Your task to perform on an android device: toggle airplane mode Image 0: 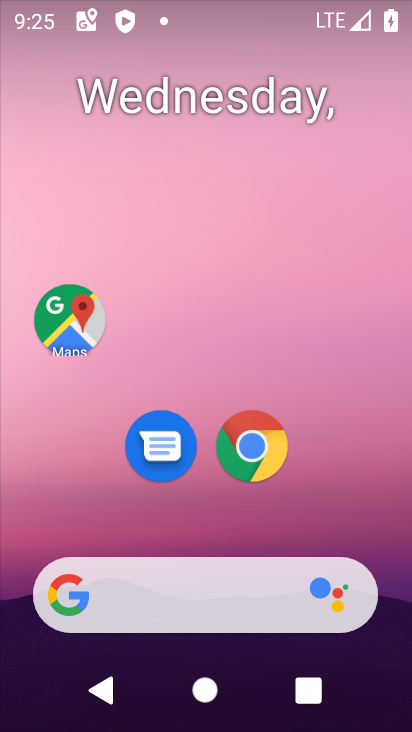
Step 0: press home button
Your task to perform on an android device: toggle airplane mode Image 1: 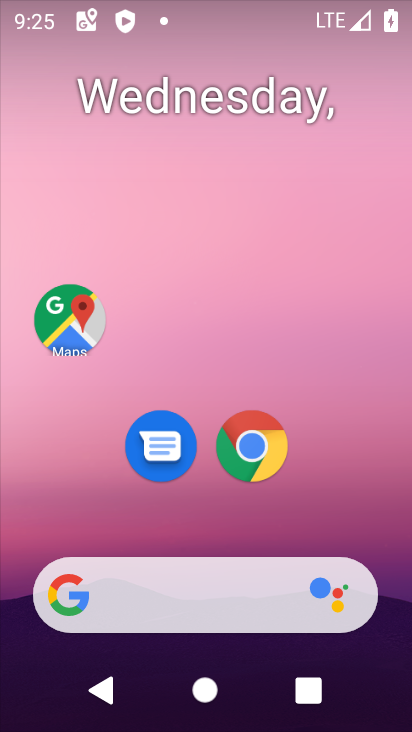
Step 1: drag from (167, 590) to (292, 183)
Your task to perform on an android device: toggle airplane mode Image 2: 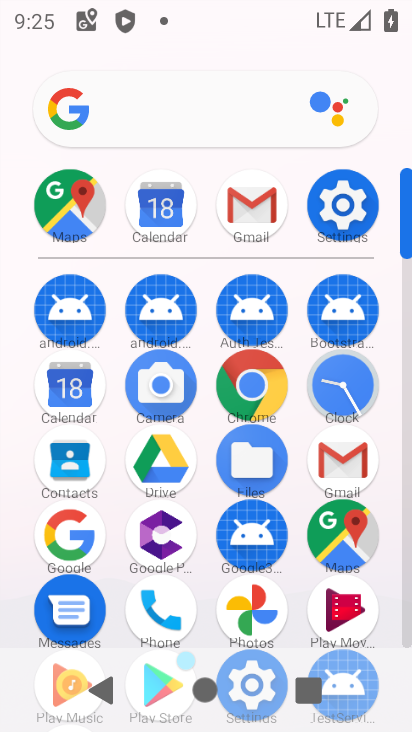
Step 2: click (335, 206)
Your task to perform on an android device: toggle airplane mode Image 3: 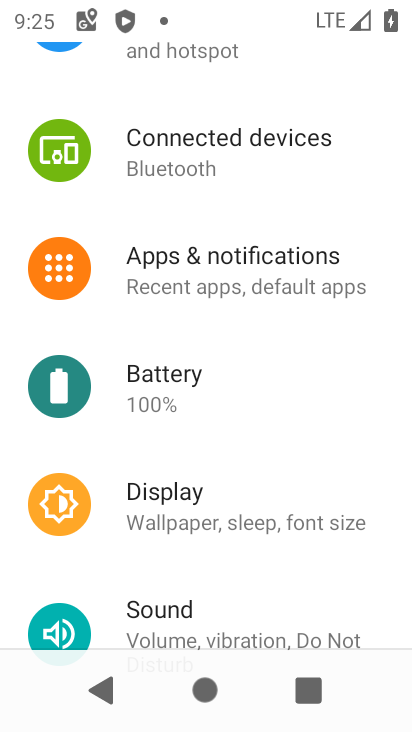
Step 3: drag from (321, 90) to (249, 541)
Your task to perform on an android device: toggle airplane mode Image 4: 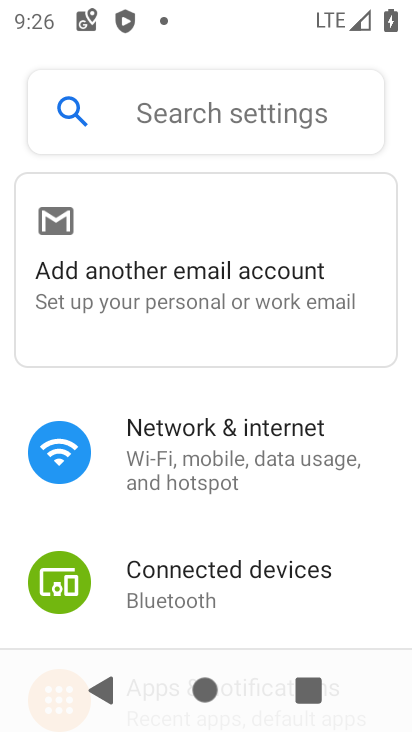
Step 4: click (244, 450)
Your task to perform on an android device: toggle airplane mode Image 5: 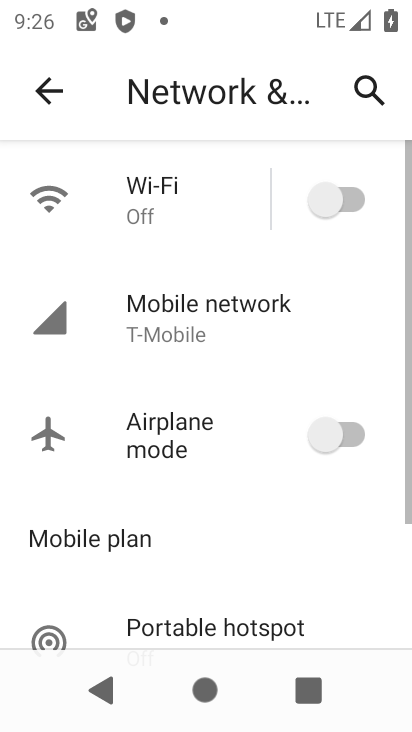
Step 5: click (358, 427)
Your task to perform on an android device: toggle airplane mode Image 6: 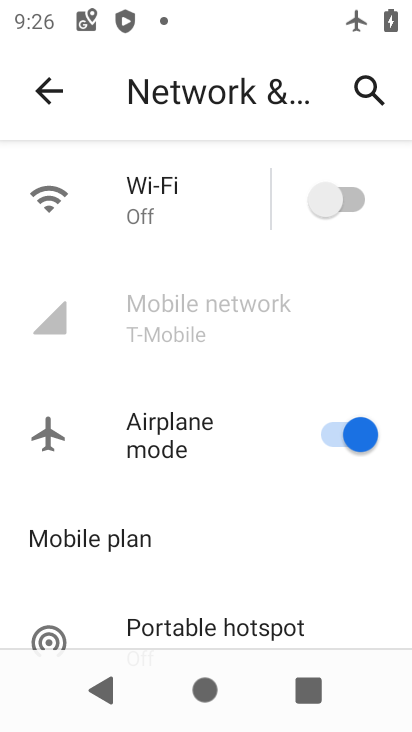
Step 6: task complete